Your task to perform on an android device: add a contact in the contacts app Image 0: 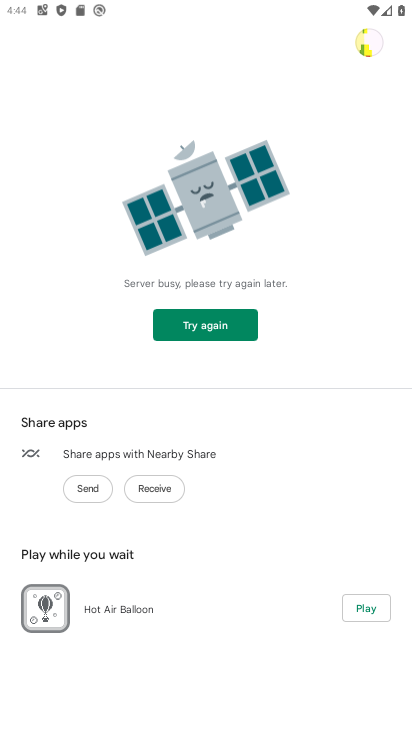
Step 0: press home button
Your task to perform on an android device: add a contact in the contacts app Image 1: 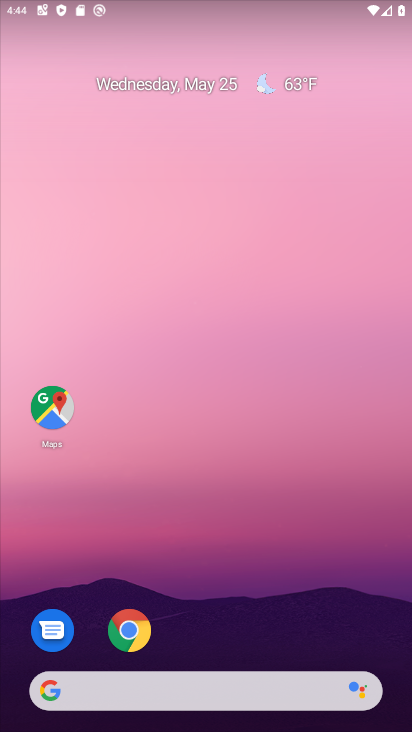
Step 1: drag from (190, 619) to (259, 39)
Your task to perform on an android device: add a contact in the contacts app Image 2: 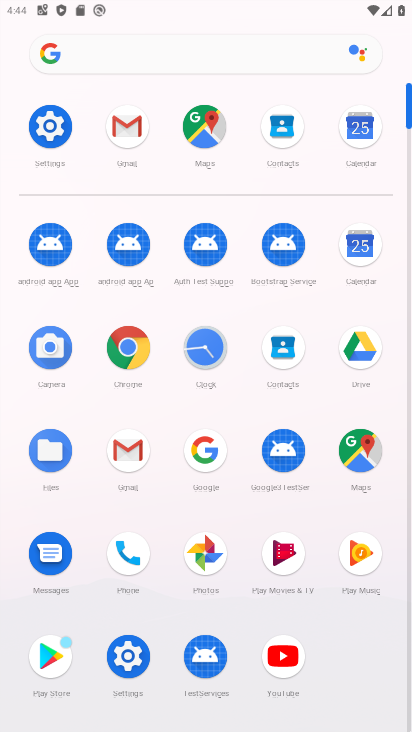
Step 2: click (282, 348)
Your task to perform on an android device: add a contact in the contacts app Image 3: 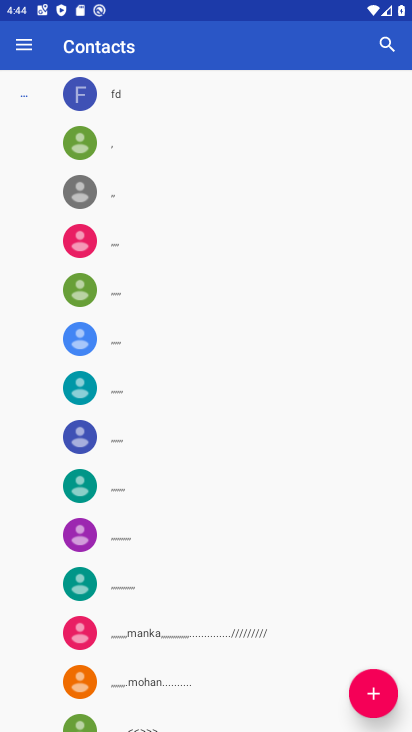
Step 3: click (384, 697)
Your task to perform on an android device: add a contact in the contacts app Image 4: 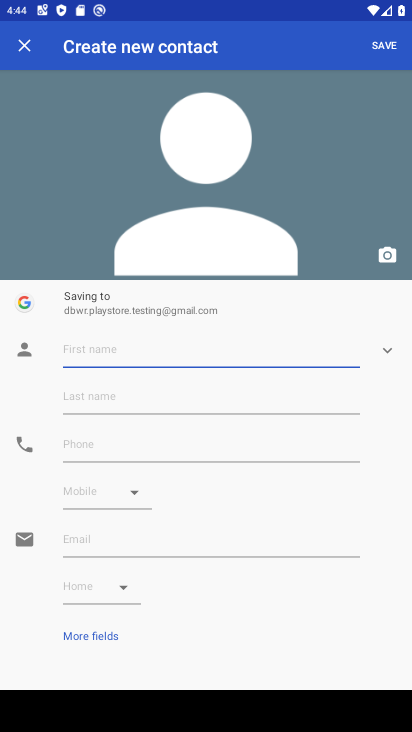
Step 4: click (66, 334)
Your task to perform on an android device: add a contact in the contacts app Image 5: 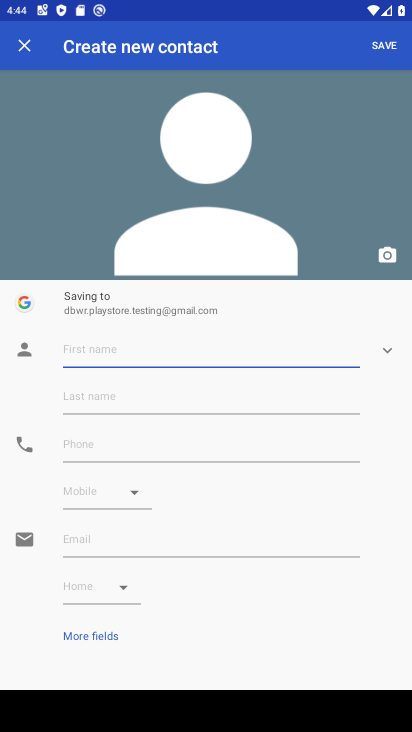
Step 5: type "gnfgn"
Your task to perform on an android device: add a contact in the contacts app Image 6: 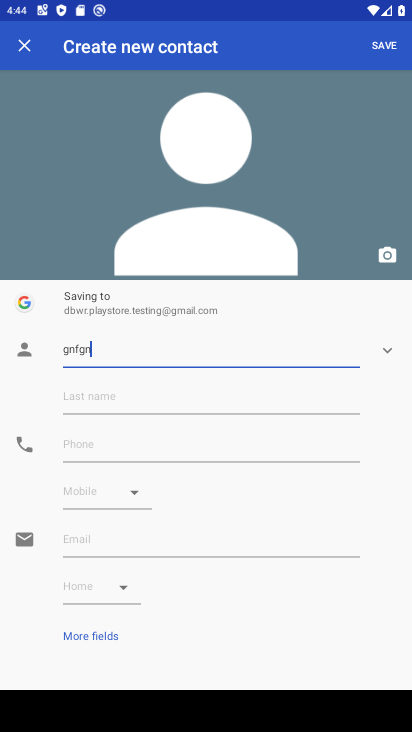
Step 6: click (106, 438)
Your task to perform on an android device: add a contact in the contacts app Image 7: 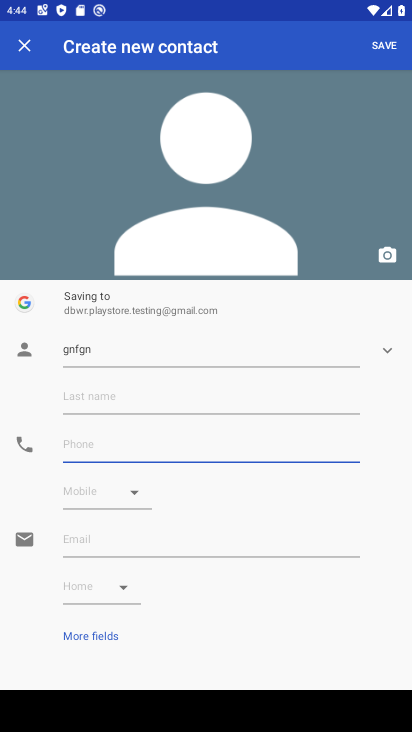
Step 7: type "756767"
Your task to perform on an android device: add a contact in the contacts app Image 8: 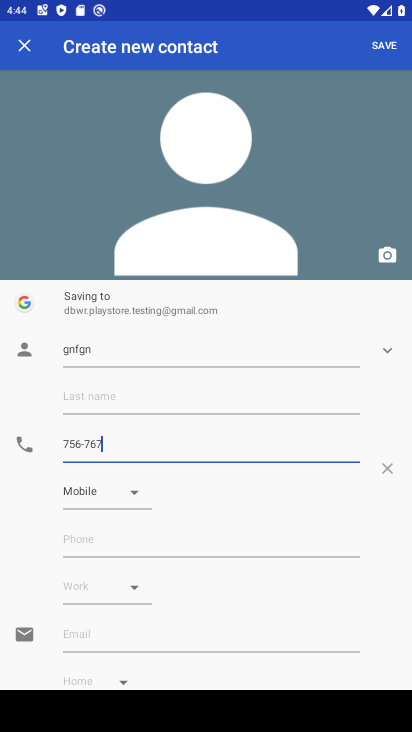
Step 8: click (389, 48)
Your task to perform on an android device: add a contact in the contacts app Image 9: 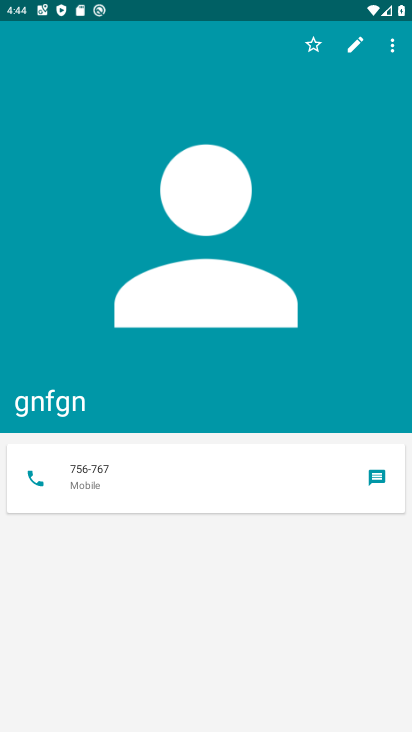
Step 9: task complete